Your task to perform on an android device: Open the map Image 0: 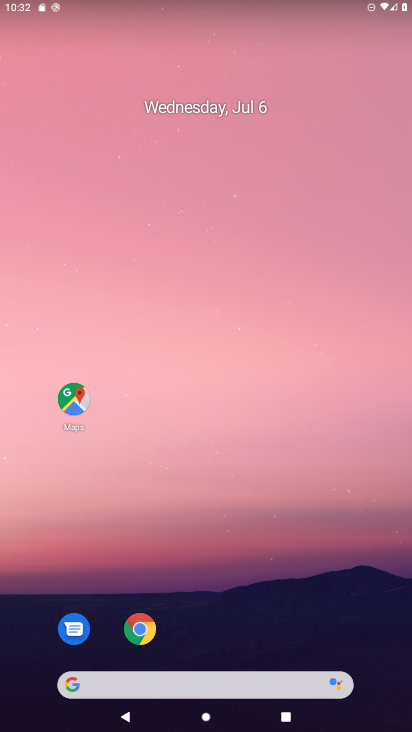
Step 0: click (84, 399)
Your task to perform on an android device: Open the map Image 1: 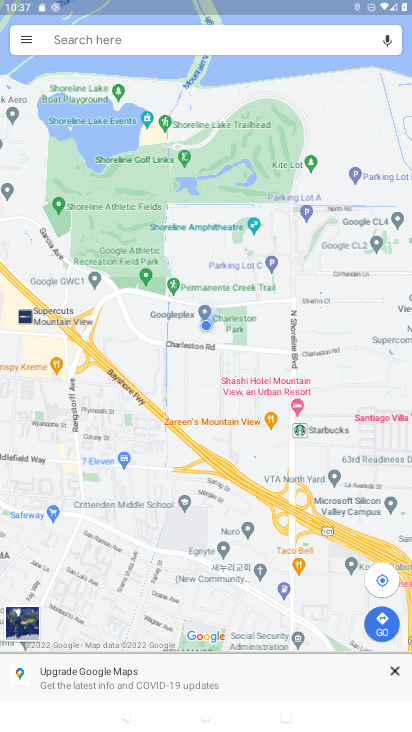
Step 1: task complete